Your task to perform on an android device: turn off location history Image 0: 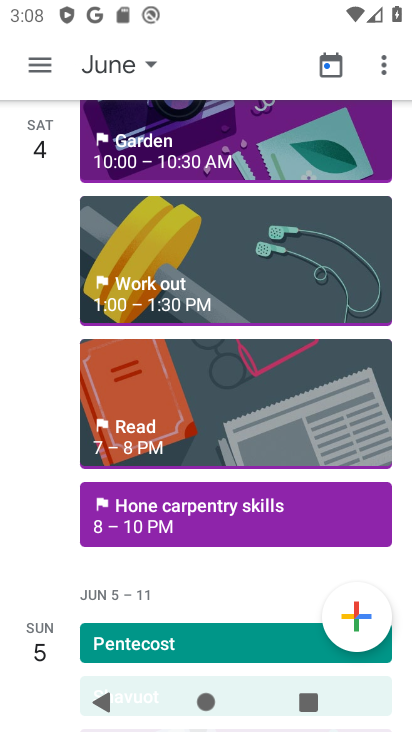
Step 0: drag from (185, 592) to (182, 210)
Your task to perform on an android device: turn off location history Image 1: 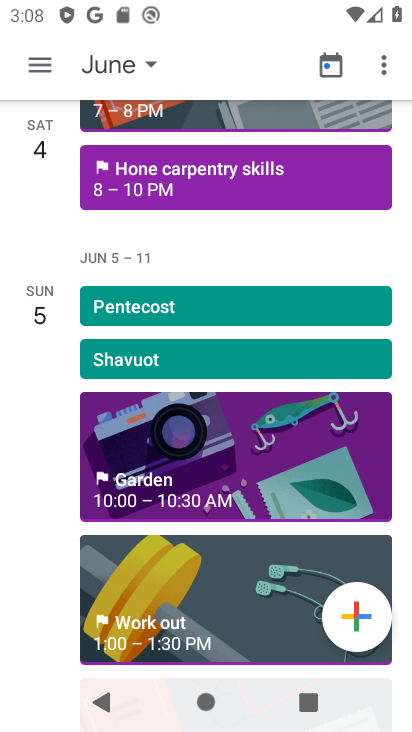
Step 1: press home button
Your task to perform on an android device: turn off location history Image 2: 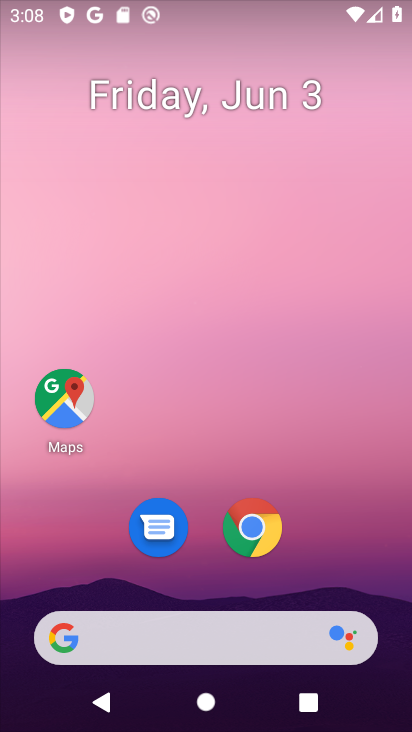
Step 2: drag from (208, 520) to (198, 337)
Your task to perform on an android device: turn off location history Image 3: 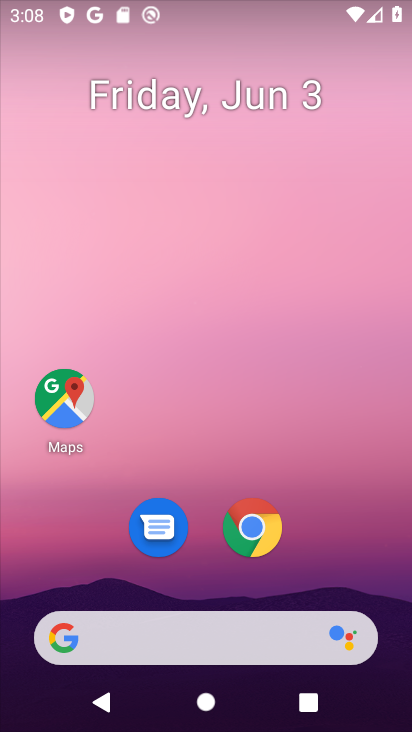
Step 3: drag from (209, 607) to (215, 278)
Your task to perform on an android device: turn off location history Image 4: 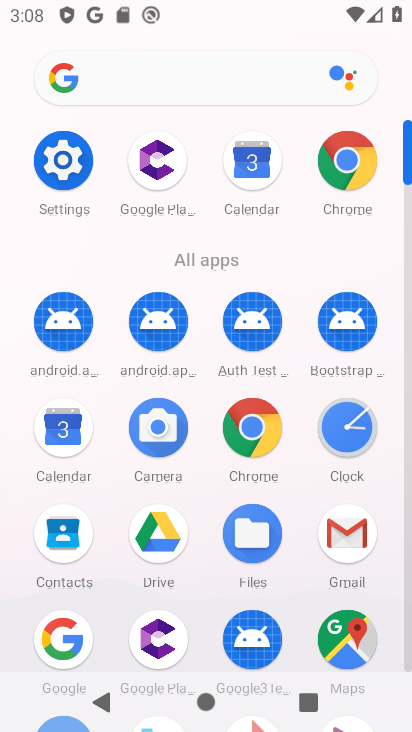
Step 4: click (58, 159)
Your task to perform on an android device: turn off location history Image 5: 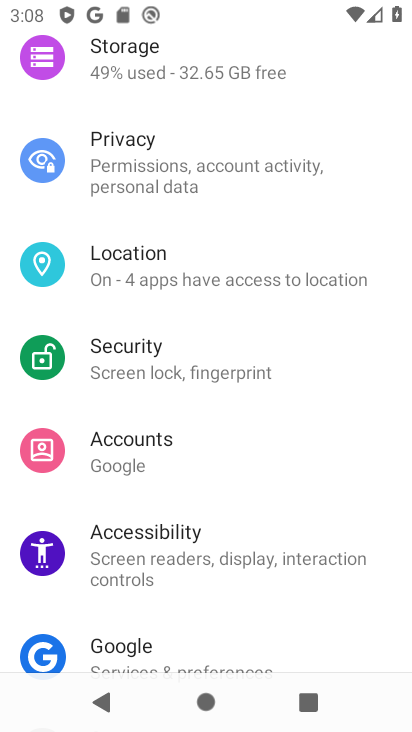
Step 5: drag from (205, 576) to (227, 204)
Your task to perform on an android device: turn off location history Image 6: 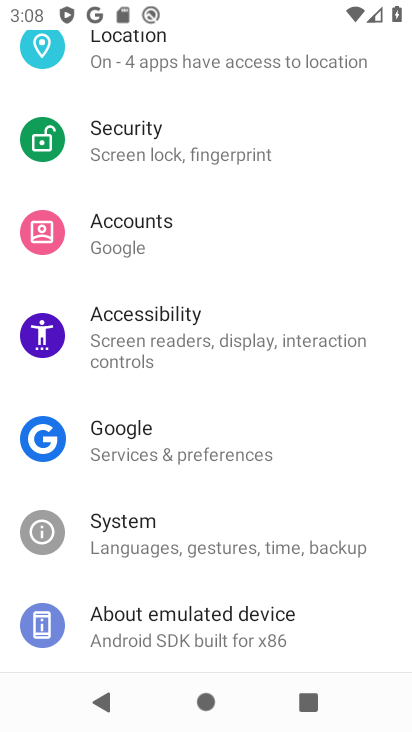
Step 6: drag from (176, 549) to (203, 321)
Your task to perform on an android device: turn off location history Image 7: 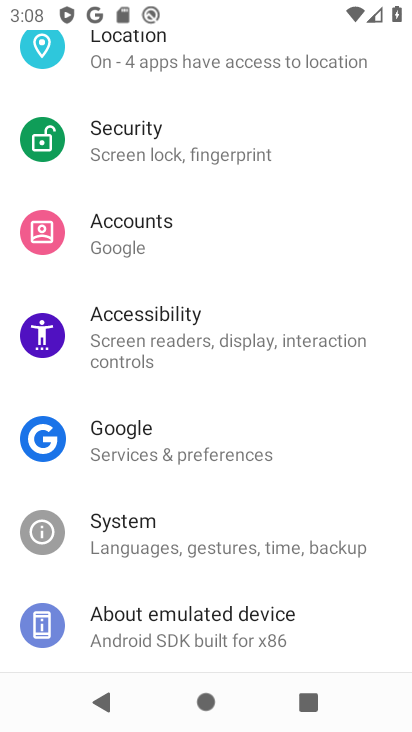
Step 7: drag from (241, 192) to (233, 619)
Your task to perform on an android device: turn off location history Image 8: 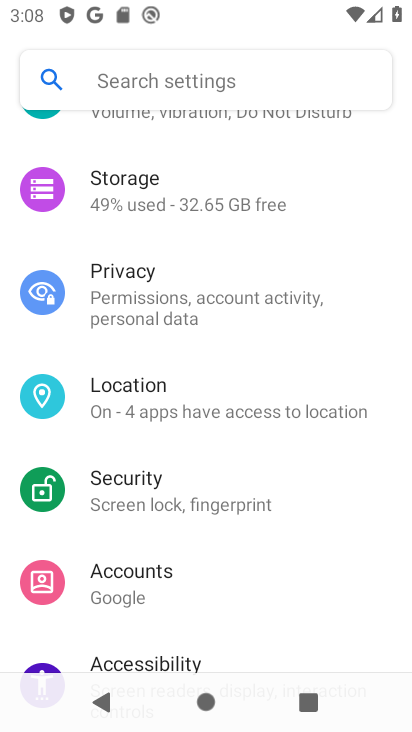
Step 8: drag from (165, 198) to (227, 309)
Your task to perform on an android device: turn off location history Image 9: 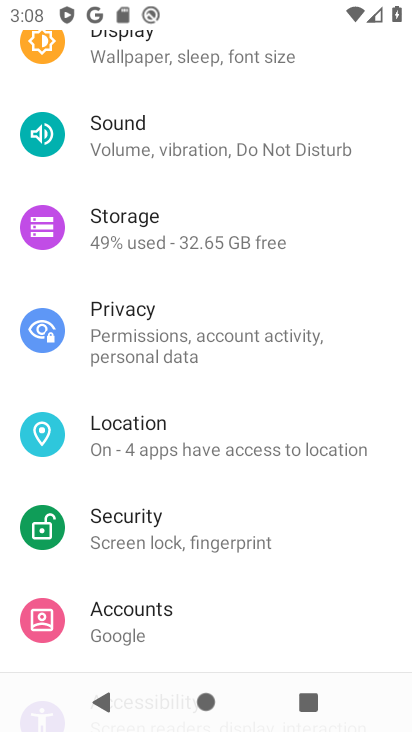
Step 9: click (165, 430)
Your task to perform on an android device: turn off location history Image 10: 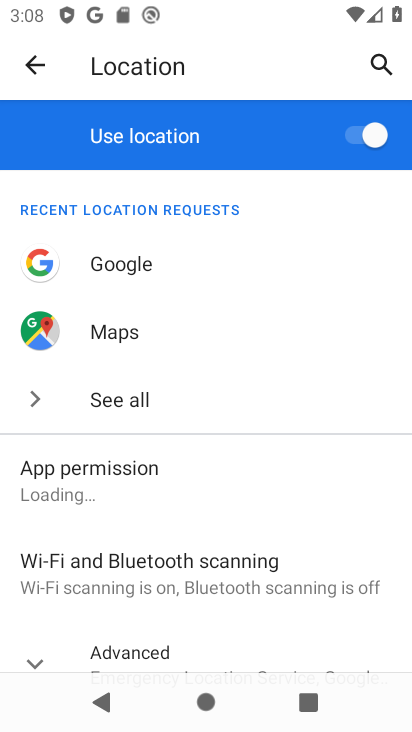
Step 10: drag from (229, 601) to (259, 274)
Your task to perform on an android device: turn off location history Image 11: 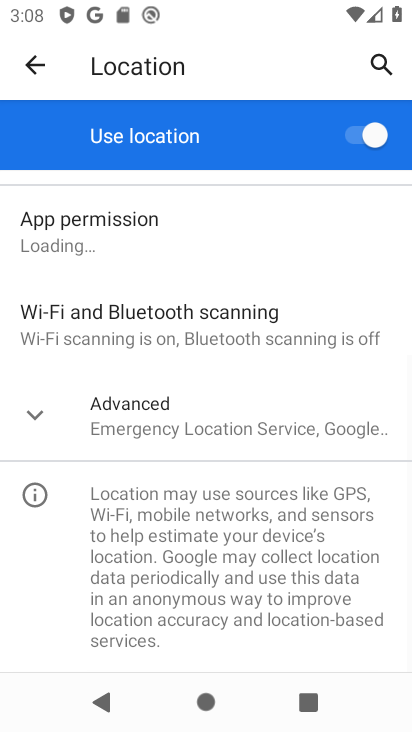
Step 11: click (198, 415)
Your task to perform on an android device: turn off location history Image 12: 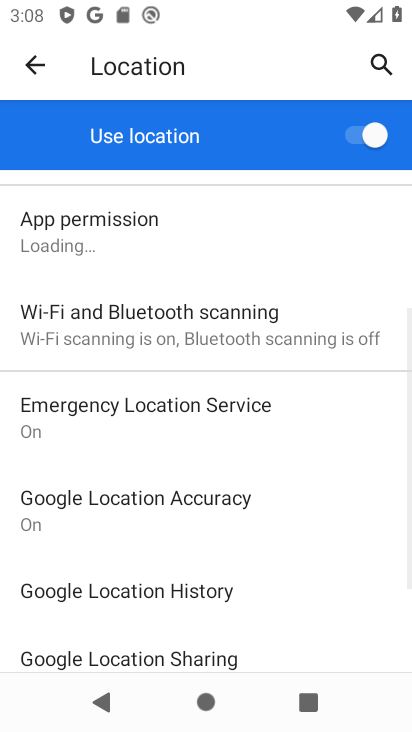
Step 12: drag from (262, 597) to (289, 336)
Your task to perform on an android device: turn off location history Image 13: 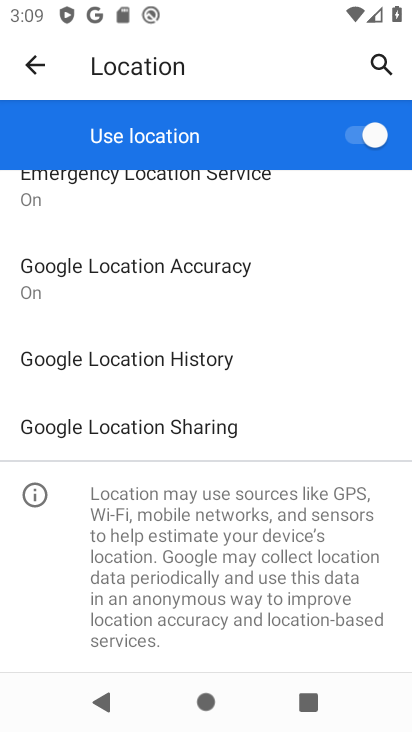
Step 13: drag from (235, 255) to (229, 455)
Your task to perform on an android device: turn off location history Image 14: 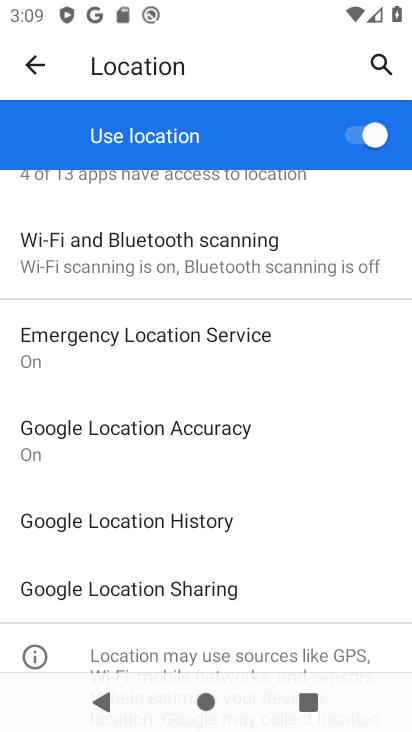
Step 14: drag from (156, 554) to (160, 457)
Your task to perform on an android device: turn off location history Image 15: 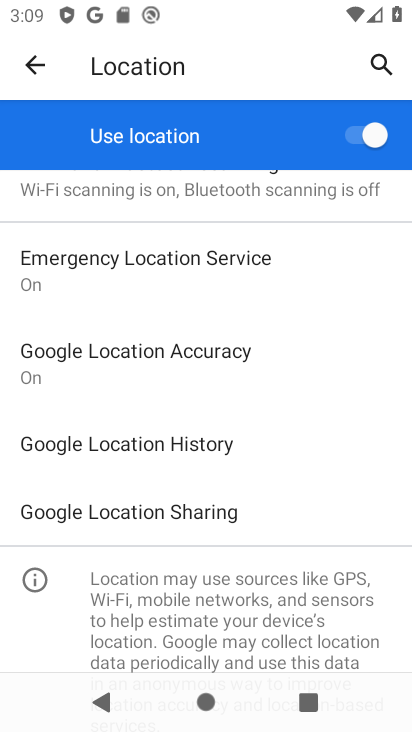
Step 15: click (140, 450)
Your task to perform on an android device: turn off location history Image 16: 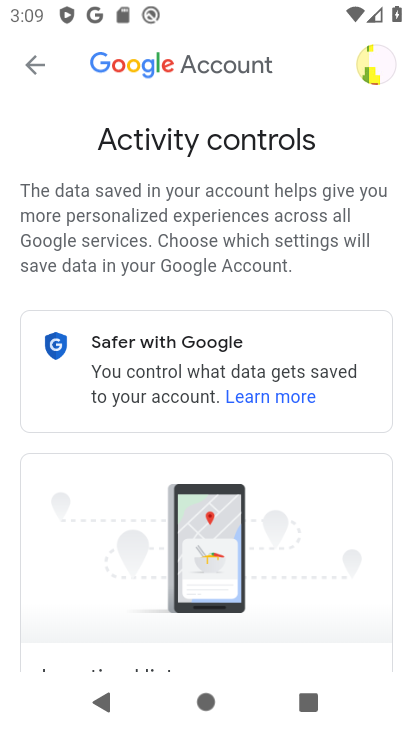
Step 16: drag from (269, 535) to (310, 158)
Your task to perform on an android device: turn off location history Image 17: 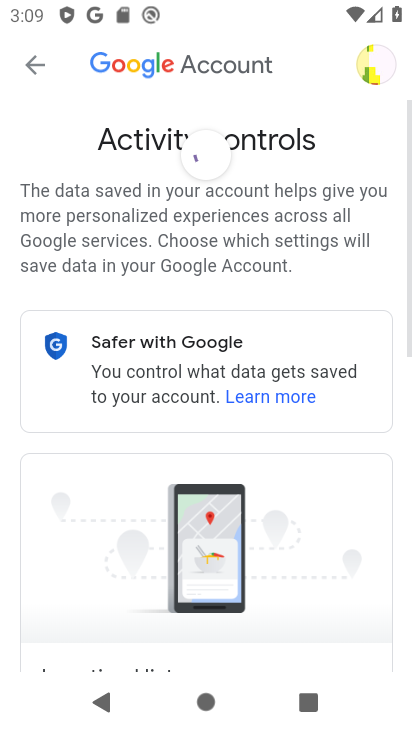
Step 17: drag from (229, 559) to (271, 296)
Your task to perform on an android device: turn off location history Image 18: 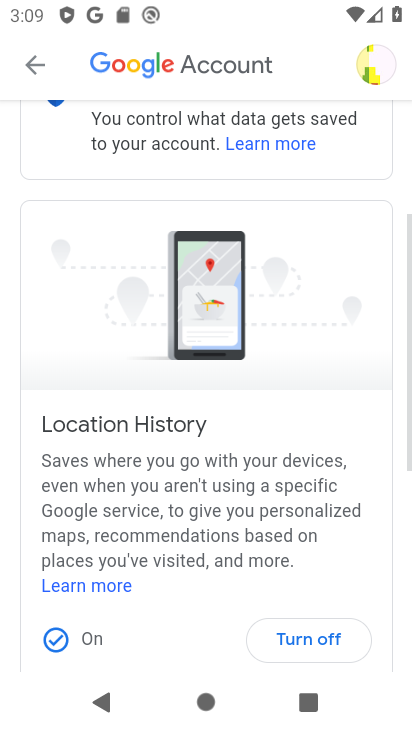
Step 18: drag from (308, 547) to (322, 309)
Your task to perform on an android device: turn off location history Image 19: 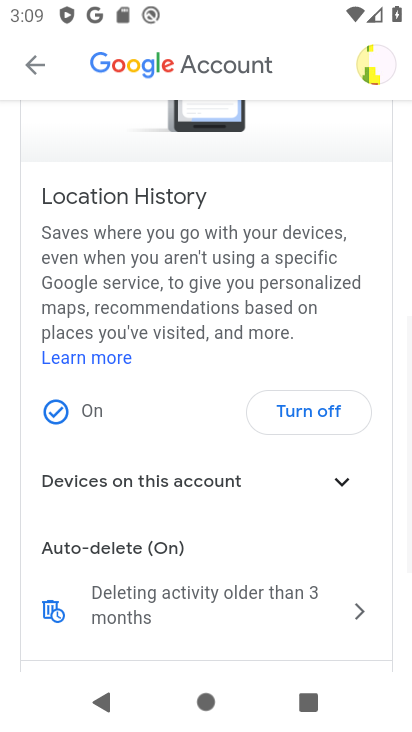
Step 19: click (299, 547)
Your task to perform on an android device: turn off location history Image 20: 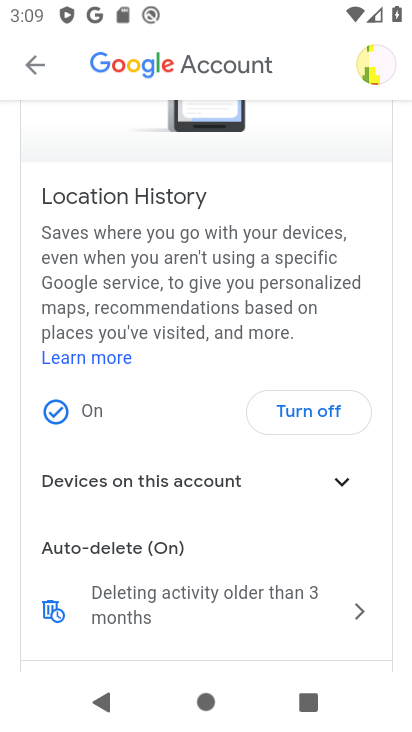
Step 20: click (327, 399)
Your task to perform on an android device: turn off location history Image 21: 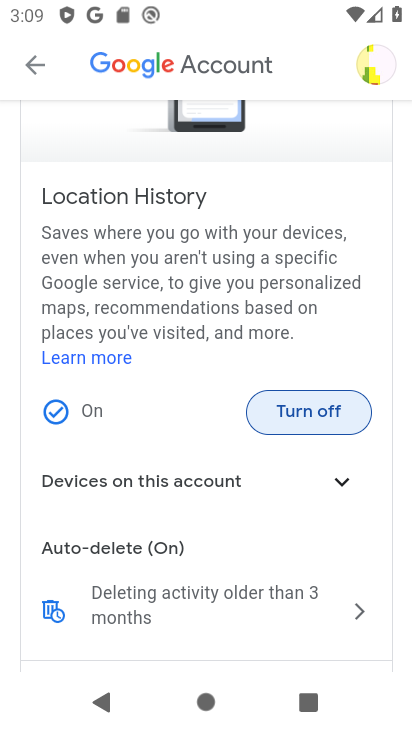
Step 21: task complete